Your task to perform on an android device: change alarm snooze length Image 0: 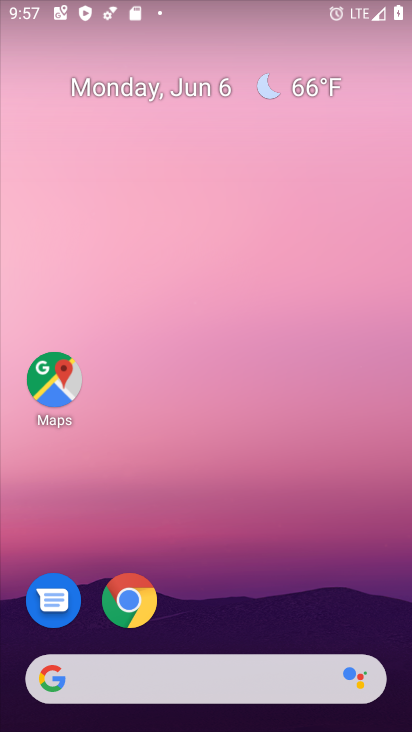
Step 0: click (291, 331)
Your task to perform on an android device: change alarm snooze length Image 1: 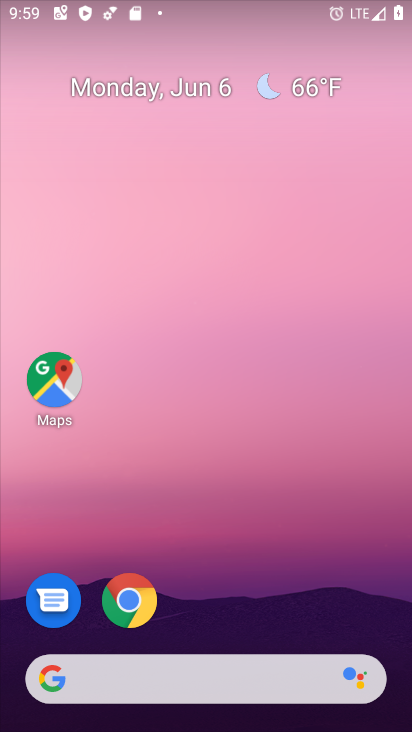
Step 1: drag from (57, 617) to (261, 223)
Your task to perform on an android device: change alarm snooze length Image 2: 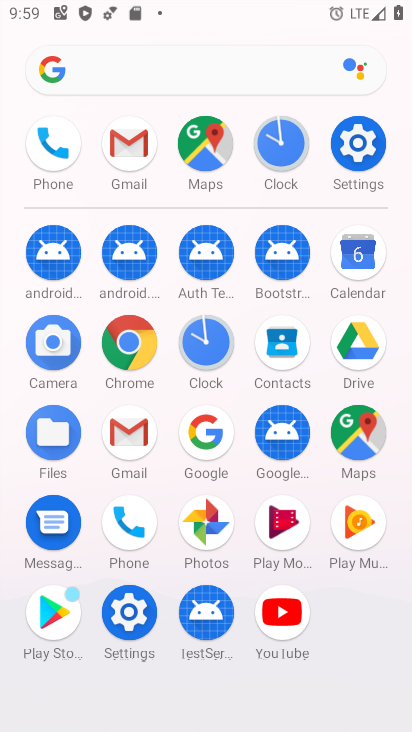
Step 2: click (209, 338)
Your task to perform on an android device: change alarm snooze length Image 3: 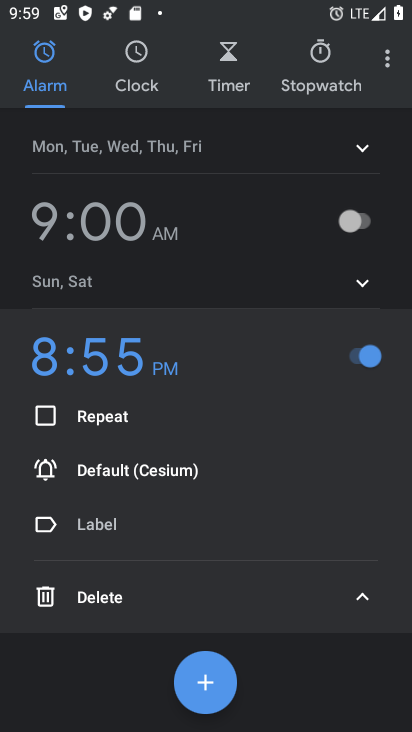
Step 3: click (386, 54)
Your task to perform on an android device: change alarm snooze length Image 4: 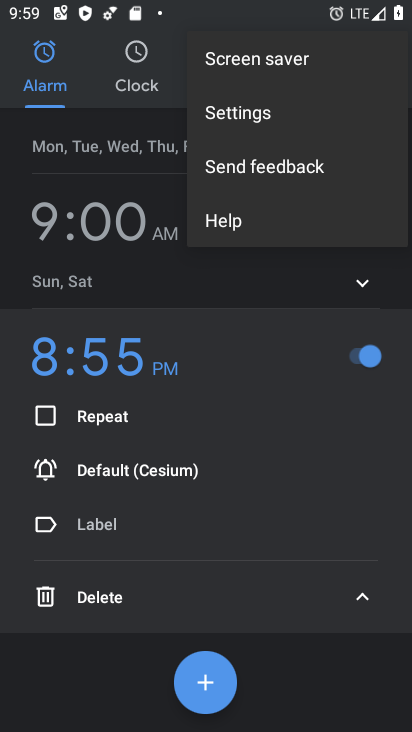
Step 4: click (248, 113)
Your task to perform on an android device: change alarm snooze length Image 5: 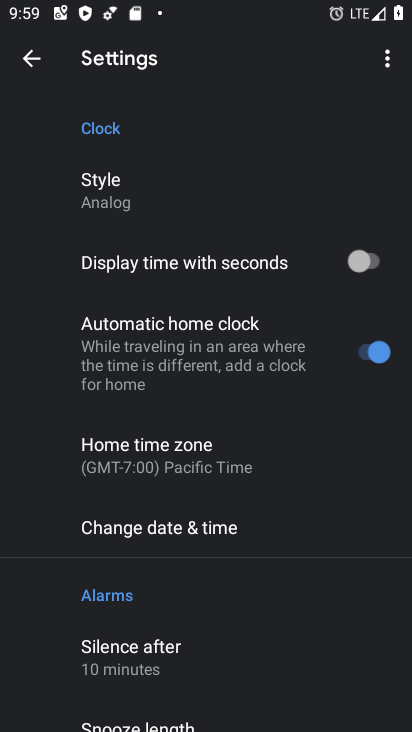
Step 5: drag from (63, 671) to (252, 181)
Your task to perform on an android device: change alarm snooze length Image 6: 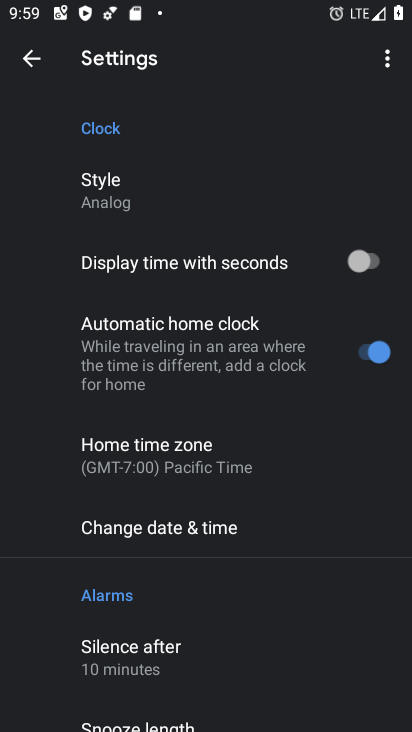
Step 6: drag from (133, 698) to (288, 215)
Your task to perform on an android device: change alarm snooze length Image 7: 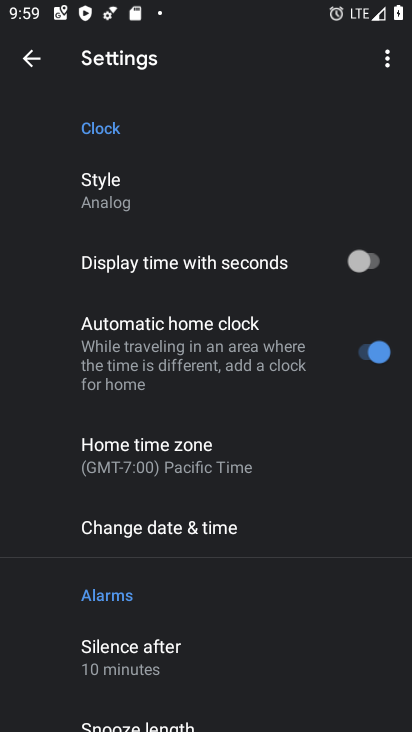
Step 7: drag from (28, 544) to (194, 213)
Your task to perform on an android device: change alarm snooze length Image 8: 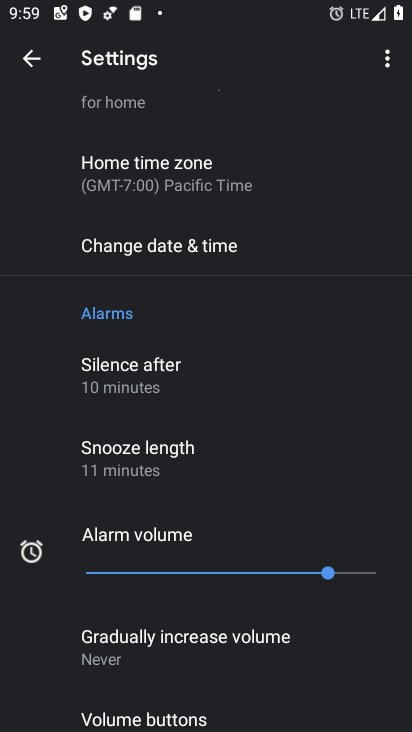
Step 8: click (145, 449)
Your task to perform on an android device: change alarm snooze length Image 9: 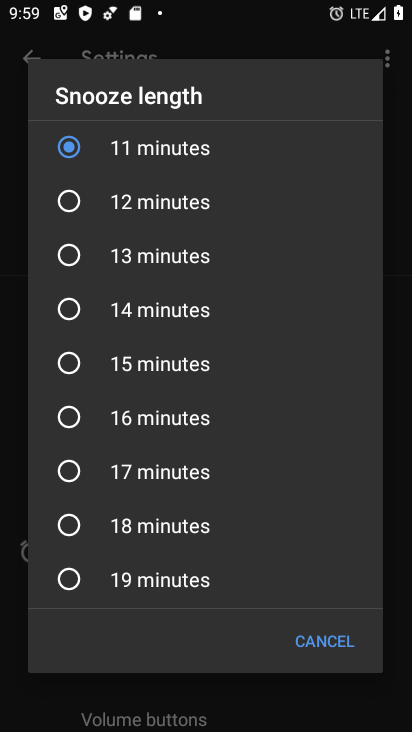
Step 9: click (106, 225)
Your task to perform on an android device: change alarm snooze length Image 10: 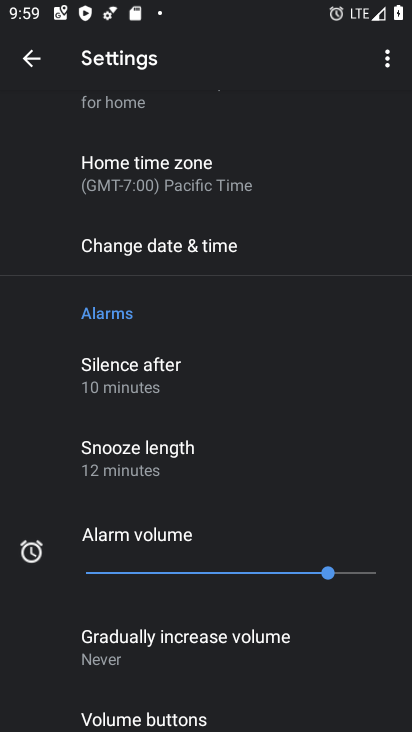
Step 10: task complete